Your task to perform on an android device: Is it going to rain tomorrow? Image 0: 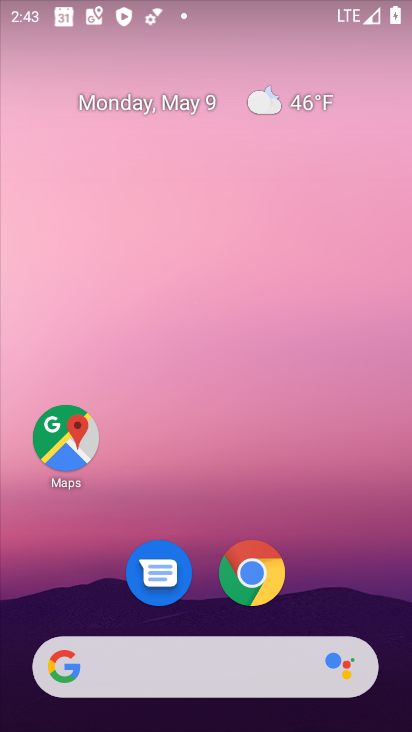
Step 0: drag from (215, 361) to (198, 167)
Your task to perform on an android device: Is it going to rain tomorrow? Image 1: 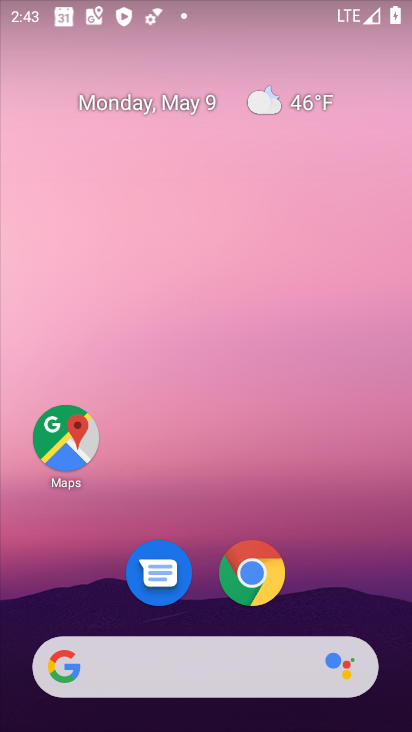
Step 1: drag from (206, 594) to (205, 152)
Your task to perform on an android device: Is it going to rain tomorrow? Image 2: 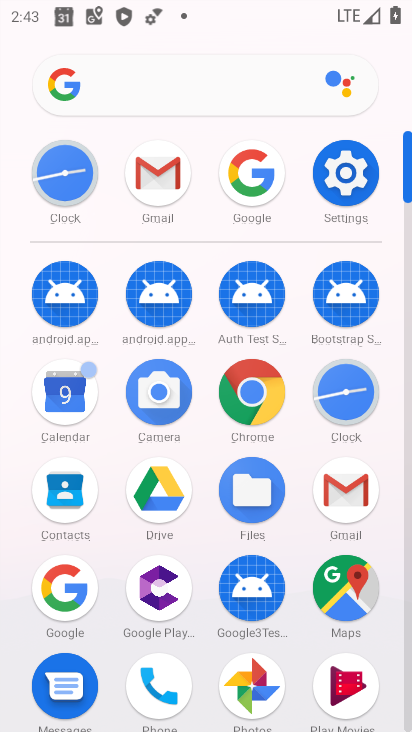
Step 2: click (56, 590)
Your task to perform on an android device: Is it going to rain tomorrow? Image 3: 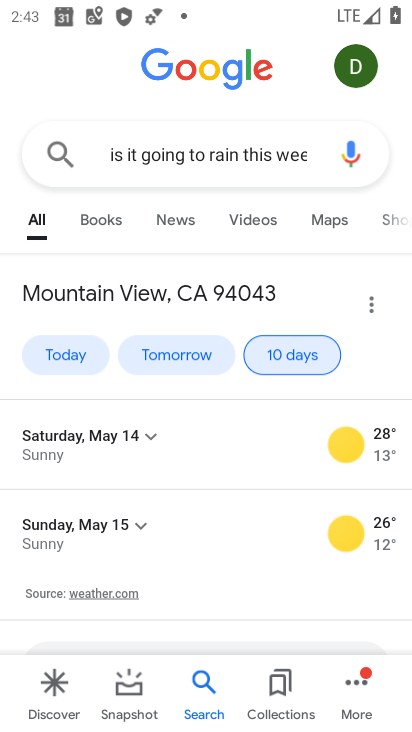
Step 3: click (292, 155)
Your task to perform on an android device: Is it going to rain tomorrow? Image 4: 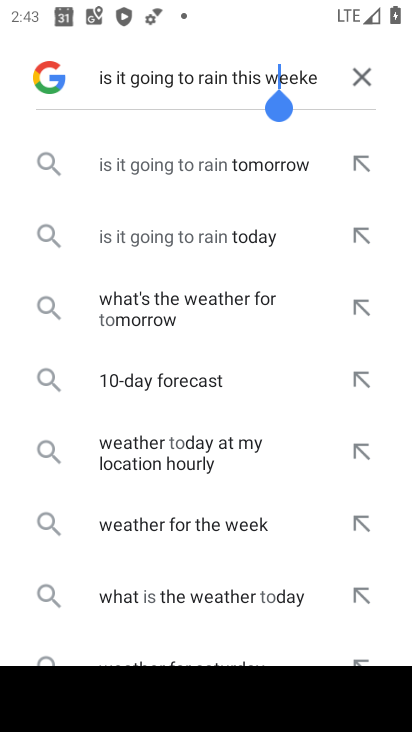
Step 4: click (197, 168)
Your task to perform on an android device: Is it going to rain tomorrow? Image 5: 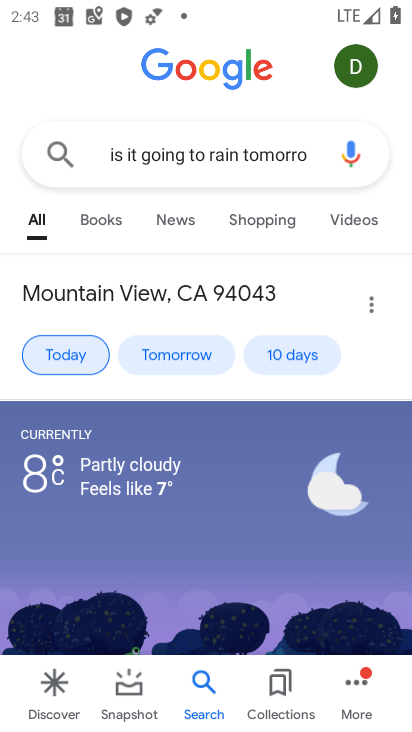
Step 5: click (161, 363)
Your task to perform on an android device: Is it going to rain tomorrow? Image 6: 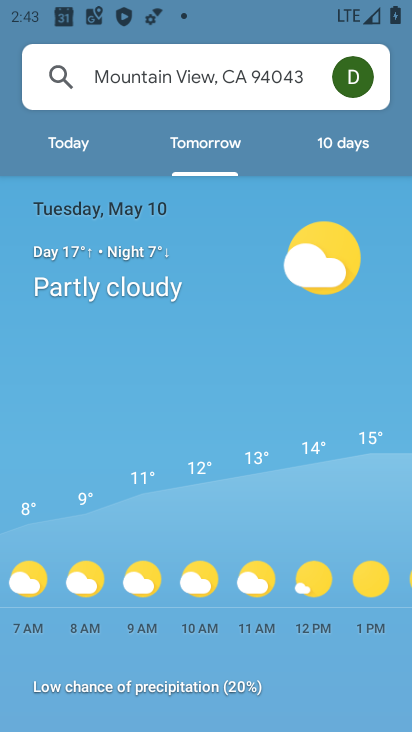
Step 6: task complete